Your task to perform on an android device: set the timer Image 0: 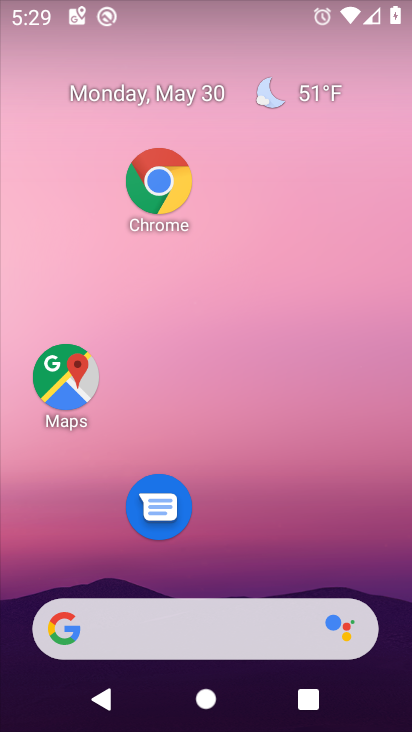
Step 0: drag from (370, 570) to (265, 14)
Your task to perform on an android device: set the timer Image 1: 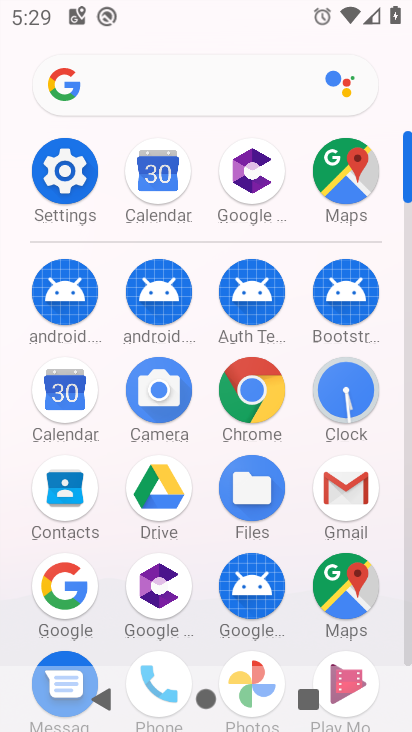
Step 1: click (345, 396)
Your task to perform on an android device: set the timer Image 2: 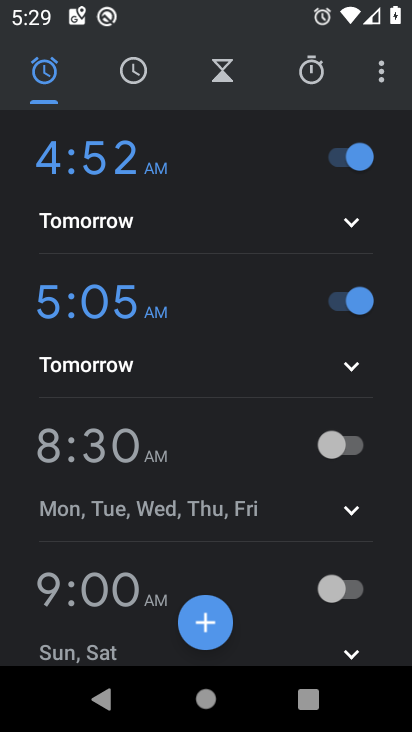
Step 2: click (233, 50)
Your task to perform on an android device: set the timer Image 3: 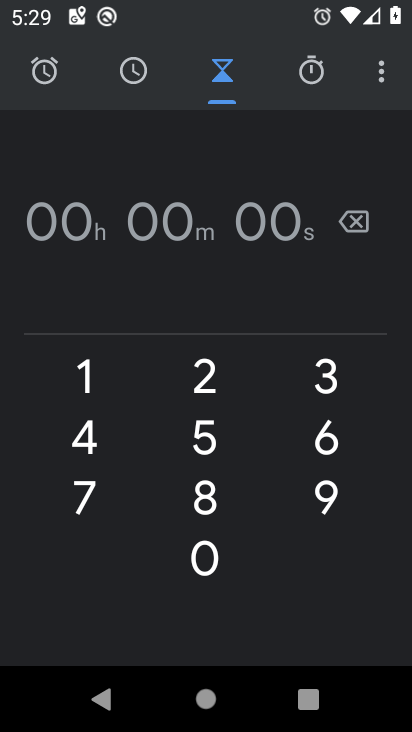
Step 3: click (262, 425)
Your task to perform on an android device: set the timer Image 4: 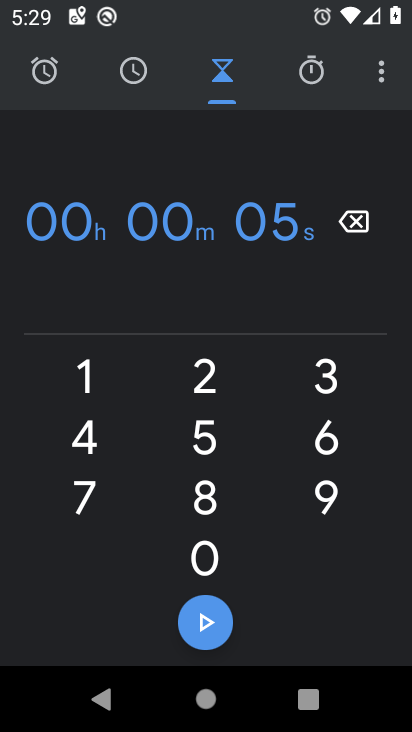
Step 4: click (183, 622)
Your task to perform on an android device: set the timer Image 5: 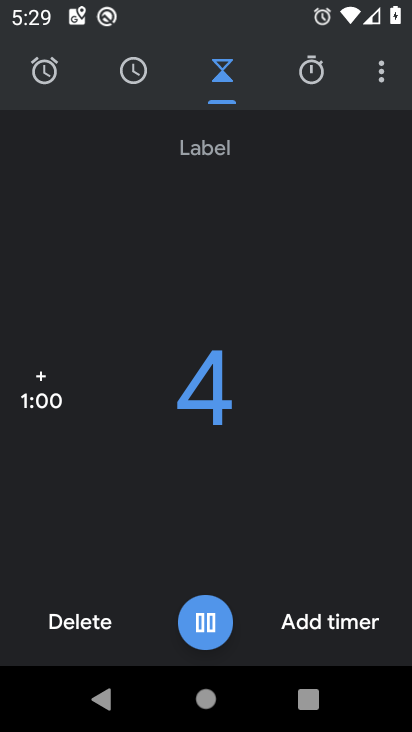
Step 5: task complete